Your task to perform on an android device: check battery use Image 0: 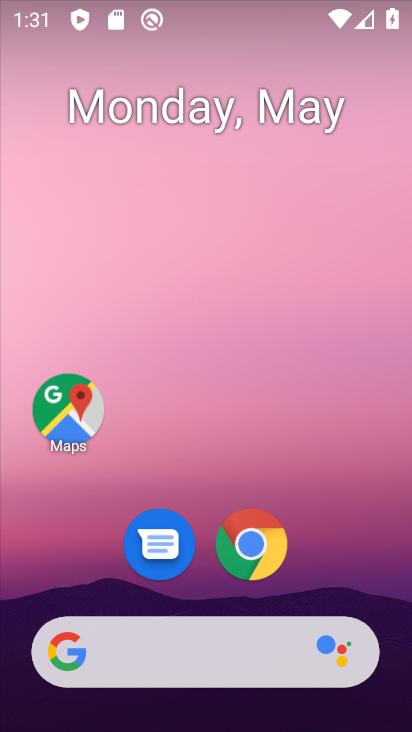
Step 0: drag from (376, 464) to (388, 277)
Your task to perform on an android device: check battery use Image 1: 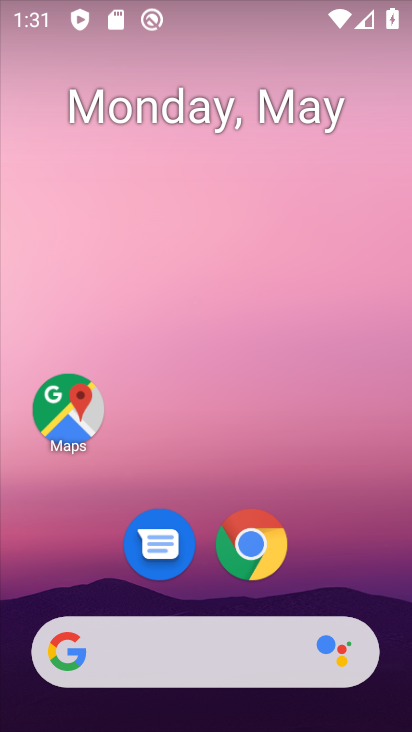
Step 1: drag from (374, 576) to (405, 259)
Your task to perform on an android device: check battery use Image 2: 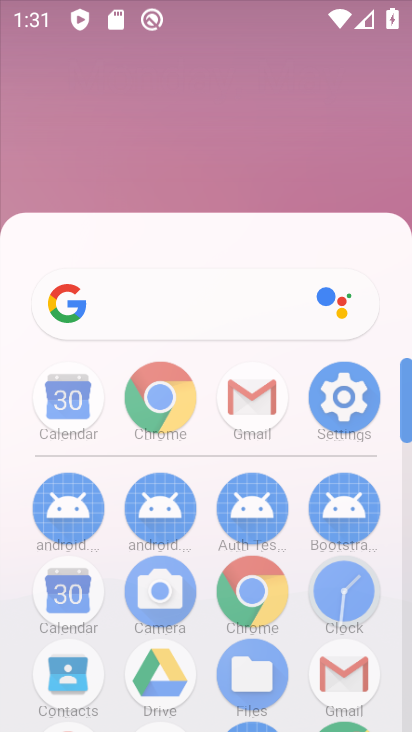
Step 2: drag from (268, 277) to (256, 67)
Your task to perform on an android device: check battery use Image 3: 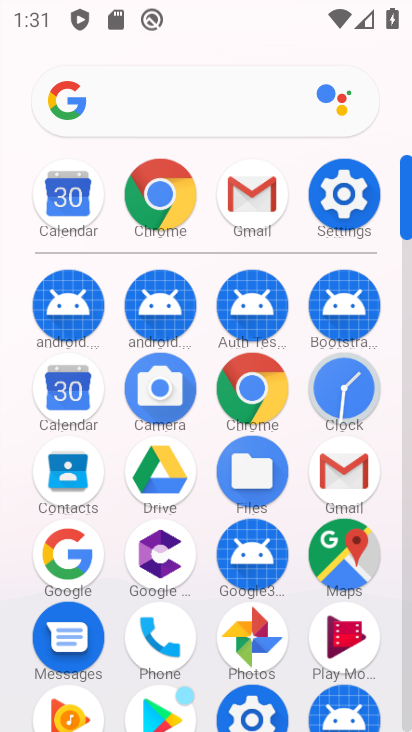
Step 3: click (355, 209)
Your task to perform on an android device: check battery use Image 4: 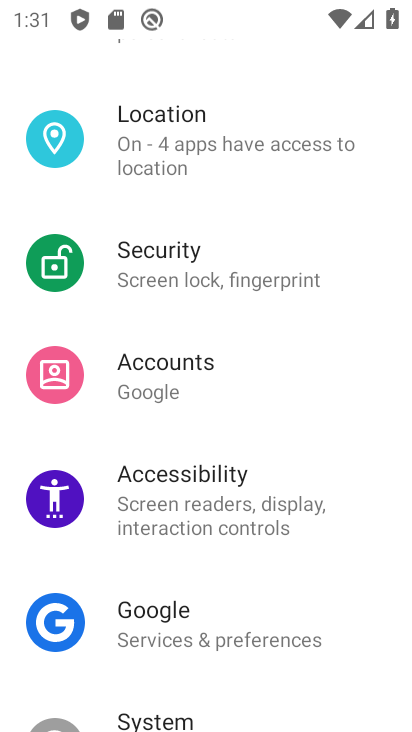
Step 4: drag from (348, 253) to (351, 343)
Your task to perform on an android device: check battery use Image 5: 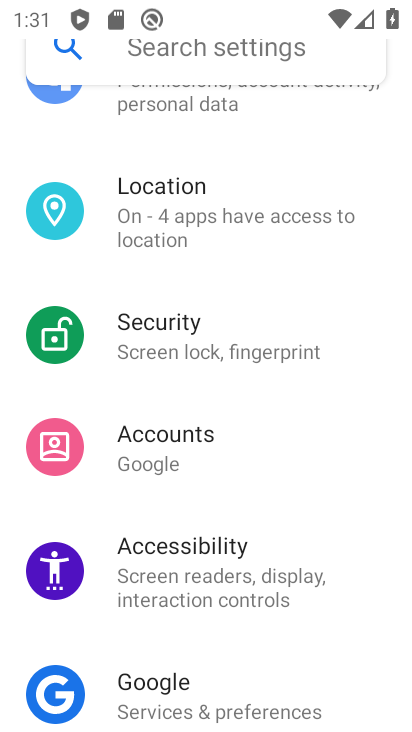
Step 5: drag from (375, 172) to (359, 314)
Your task to perform on an android device: check battery use Image 6: 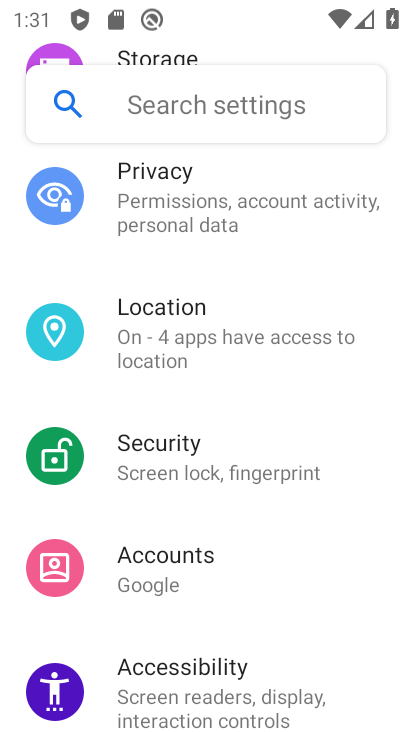
Step 6: drag from (357, 173) to (335, 337)
Your task to perform on an android device: check battery use Image 7: 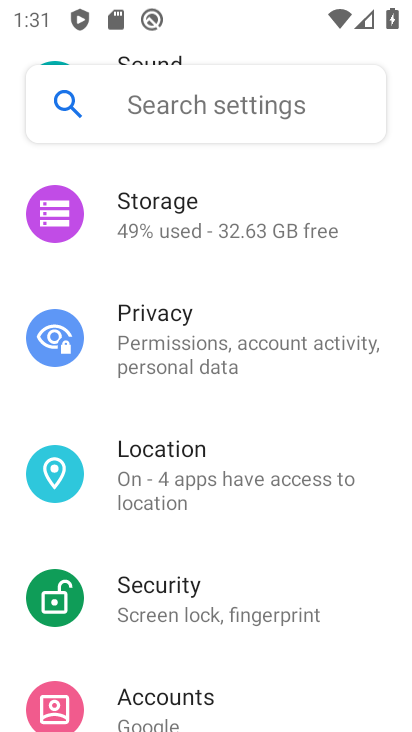
Step 7: drag from (358, 192) to (323, 377)
Your task to perform on an android device: check battery use Image 8: 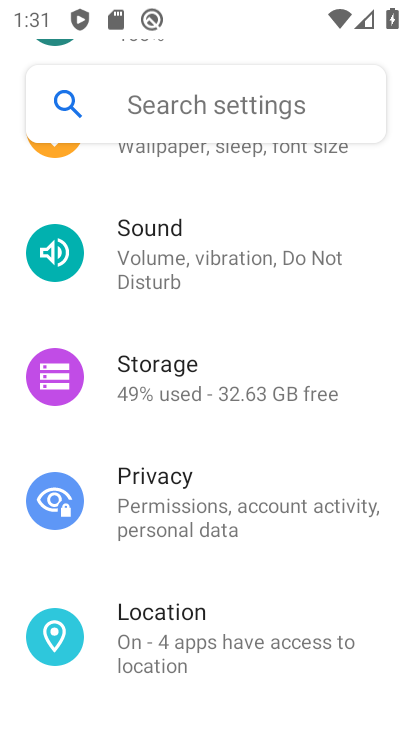
Step 8: drag from (360, 199) to (360, 349)
Your task to perform on an android device: check battery use Image 9: 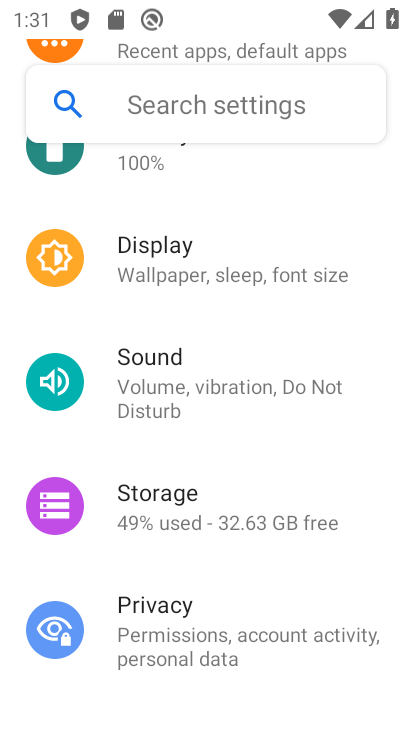
Step 9: drag from (344, 193) to (351, 383)
Your task to perform on an android device: check battery use Image 10: 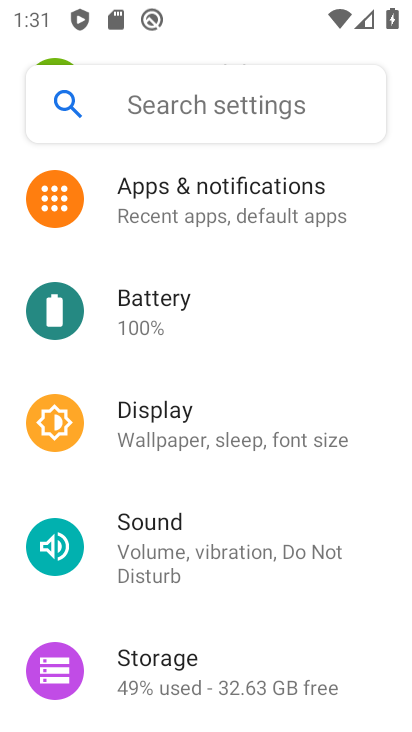
Step 10: drag from (338, 268) to (329, 396)
Your task to perform on an android device: check battery use Image 11: 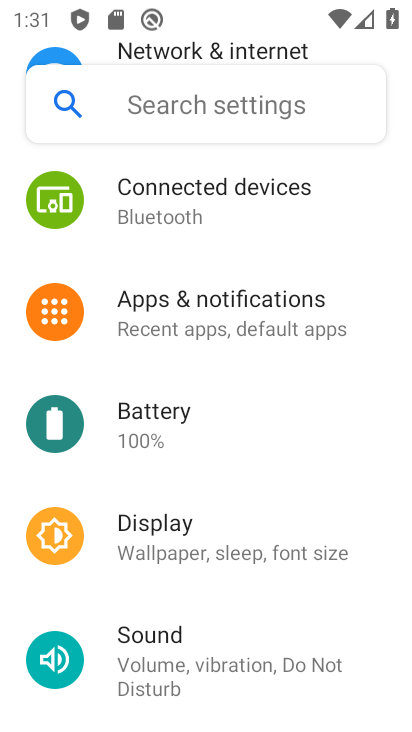
Step 11: drag from (351, 199) to (347, 375)
Your task to perform on an android device: check battery use Image 12: 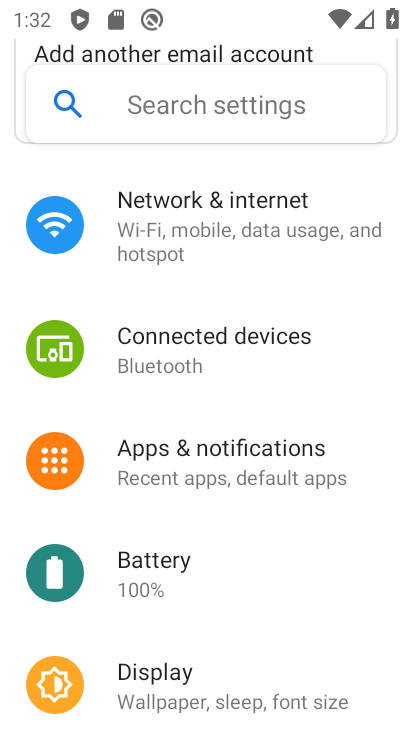
Step 12: drag from (353, 392) to (354, 224)
Your task to perform on an android device: check battery use Image 13: 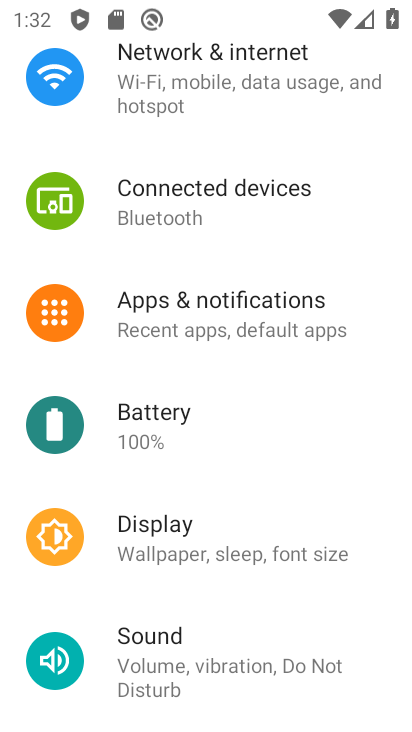
Step 13: drag from (332, 419) to (352, 257)
Your task to perform on an android device: check battery use Image 14: 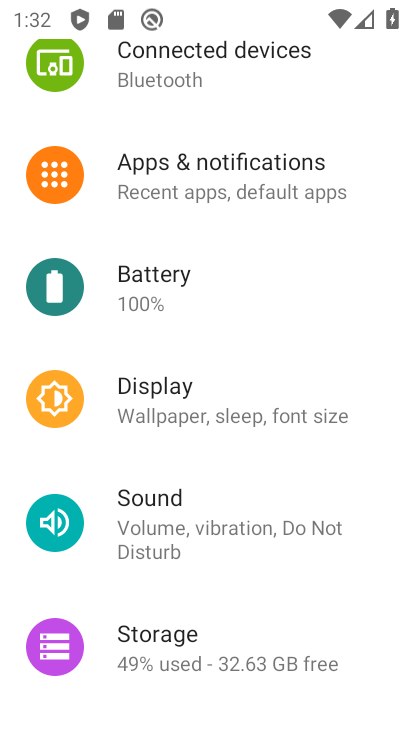
Step 14: click (195, 317)
Your task to perform on an android device: check battery use Image 15: 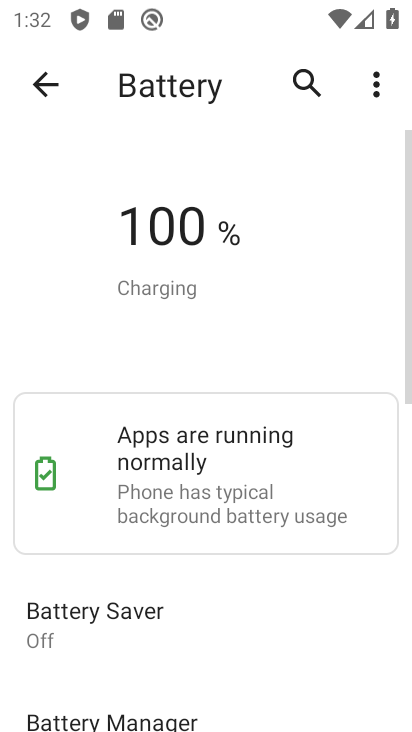
Step 15: click (370, 88)
Your task to perform on an android device: check battery use Image 16: 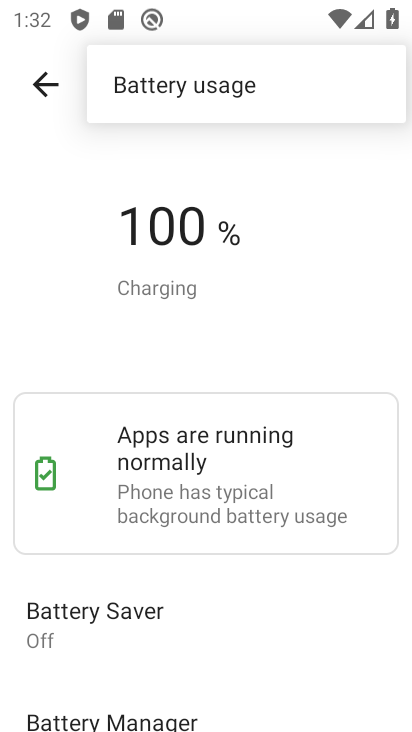
Step 16: click (257, 90)
Your task to perform on an android device: check battery use Image 17: 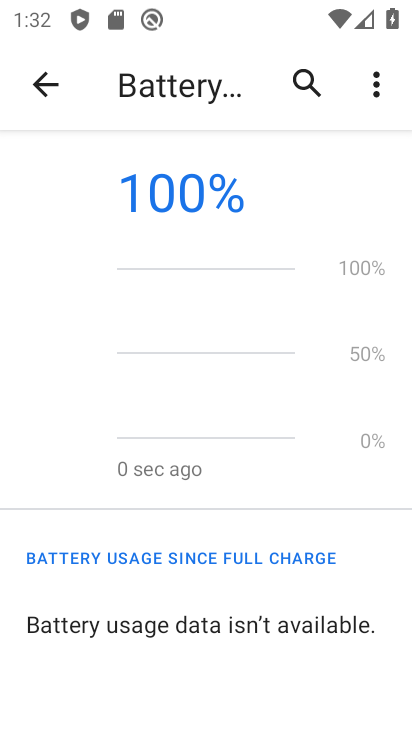
Step 17: task complete